Your task to perform on an android device: Clear the shopping cart on walmart.com. Search for duracell triple a on walmart.com, select the first entry, and add it to the cart. Image 0: 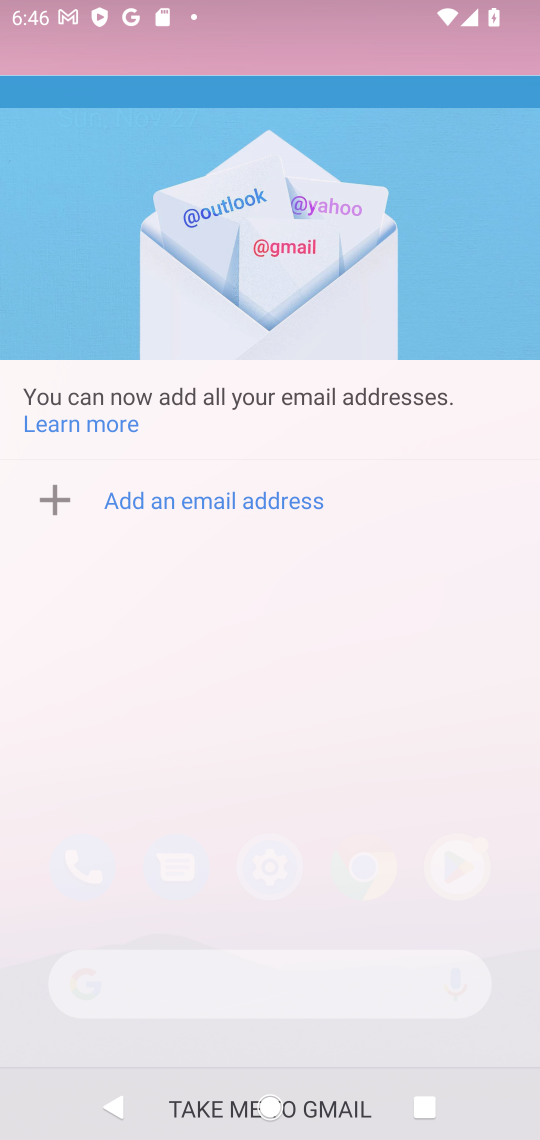
Step 0: press home button
Your task to perform on an android device: Clear the shopping cart on walmart.com. Search for duracell triple a on walmart.com, select the first entry, and add it to the cart. Image 1: 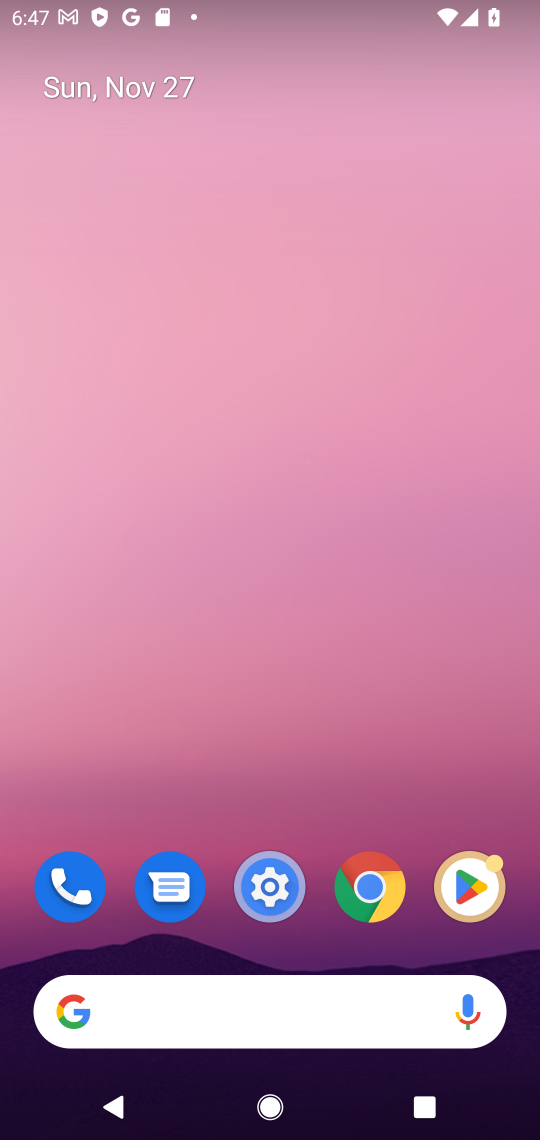
Step 1: press home button
Your task to perform on an android device: Clear the shopping cart on walmart.com. Search for duracell triple a on walmart.com, select the first entry, and add it to the cart. Image 2: 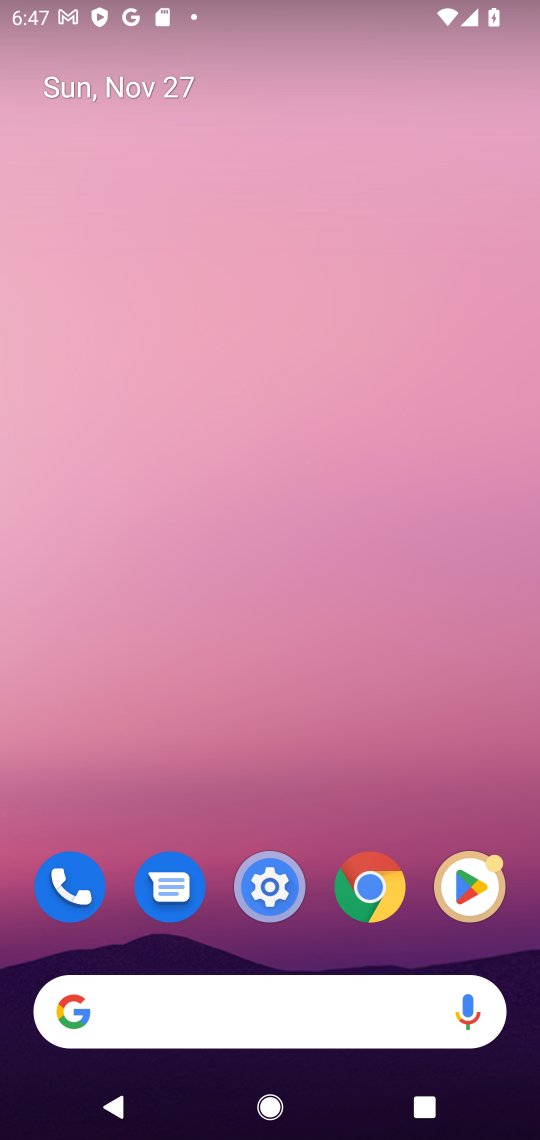
Step 2: click (323, 1029)
Your task to perform on an android device: Clear the shopping cart on walmart.com. Search for duracell triple a on walmart.com, select the first entry, and add it to the cart. Image 3: 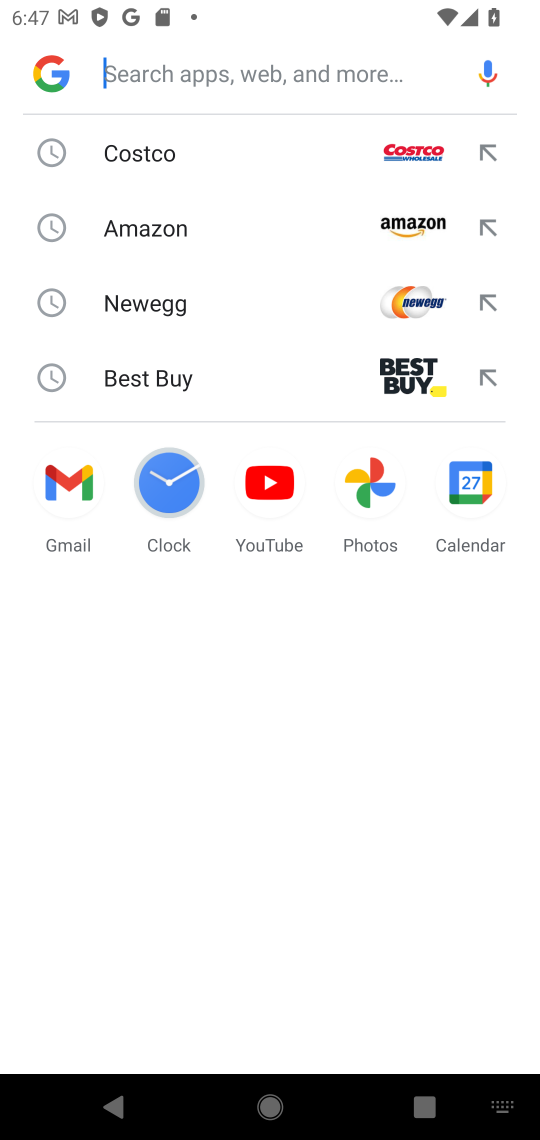
Step 3: type "walmart"
Your task to perform on an android device: Clear the shopping cart on walmart.com. Search for duracell triple a on walmart.com, select the first entry, and add it to the cart. Image 4: 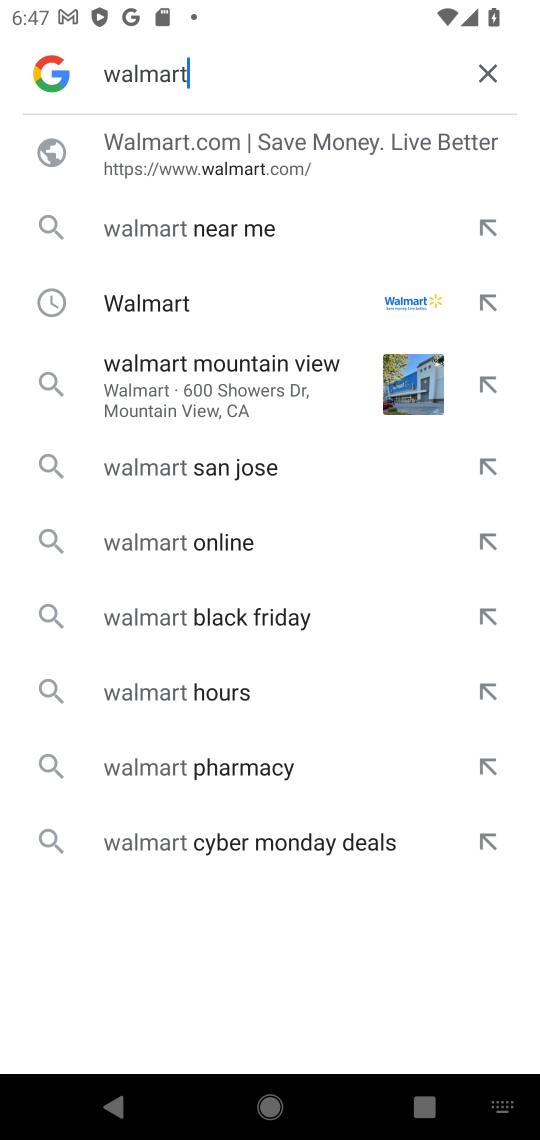
Step 4: click (301, 196)
Your task to perform on an android device: Clear the shopping cart on walmart.com. Search for duracell triple a on walmart.com, select the first entry, and add it to the cart. Image 5: 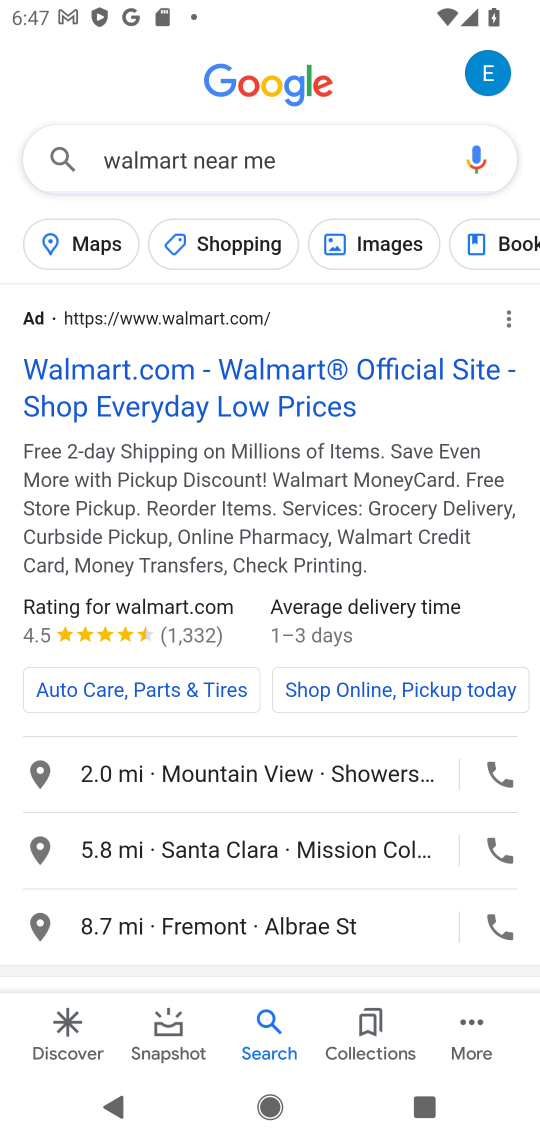
Step 5: click (193, 400)
Your task to perform on an android device: Clear the shopping cart on walmart.com. Search for duracell triple a on walmart.com, select the first entry, and add it to the cart. Image 6: 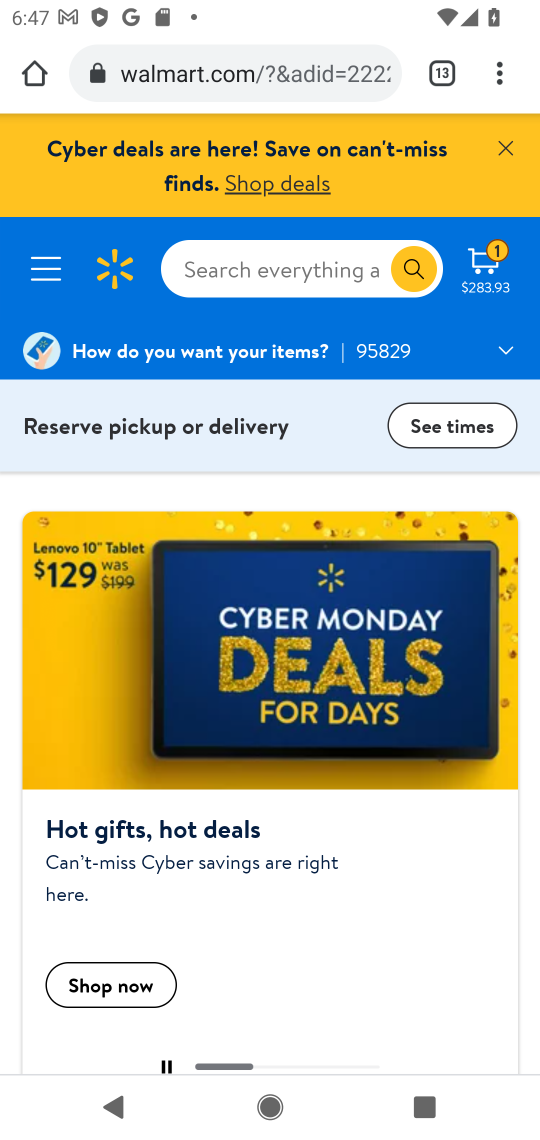
Step 6: click (294, 277)
Your task to perform on an android device: Clear the shopping cart on walmart.com. Search for duracell triple a on walmart.com, select the first entry, and add it to the cart. Image 7: 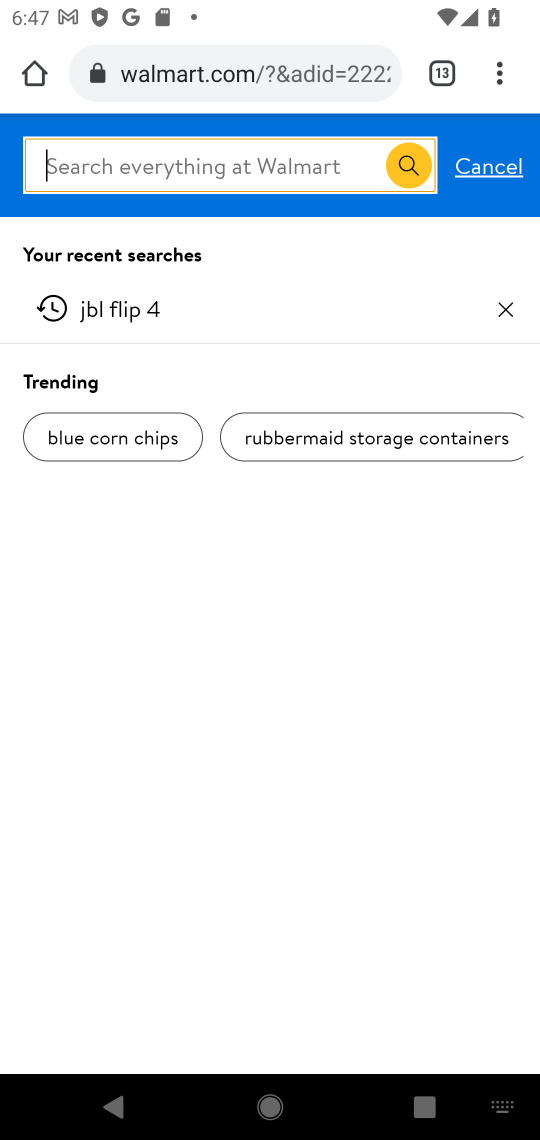
Step 7: type "duracell triple q"
Your task to perform on an android device: Clear the shopping cart on walmart.com. Search for duracell triple a on walmart.com, select the first entry, and add it to the cart. Image 8: 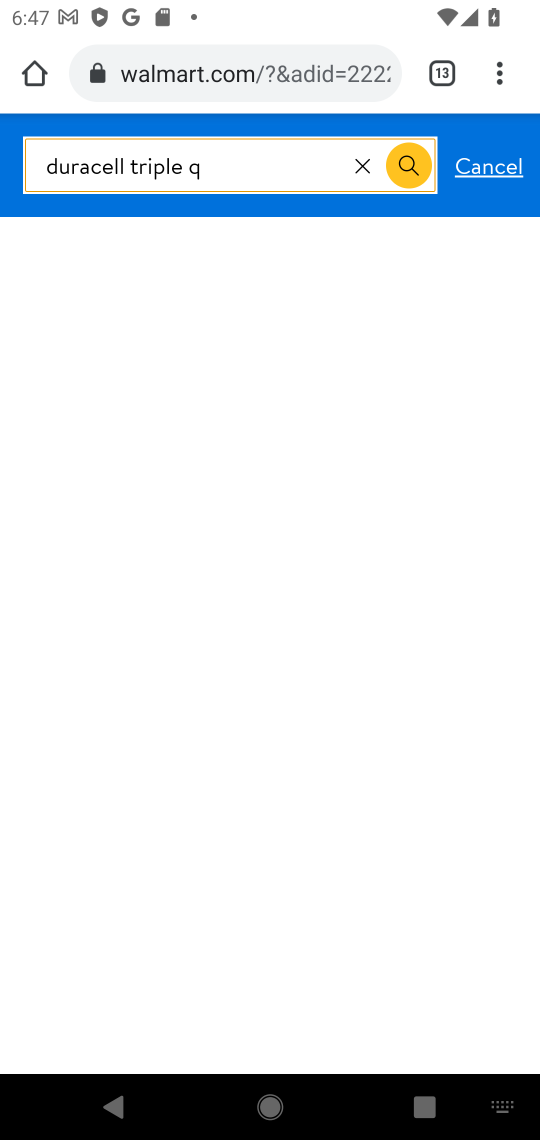
Step 8: click (406, 182)
Your task to perform on an android device: Clear the shopping cart on walmart.com. Search for duracell triple a on walmart.com, select the first entry, and add it to the cart. Image 9: 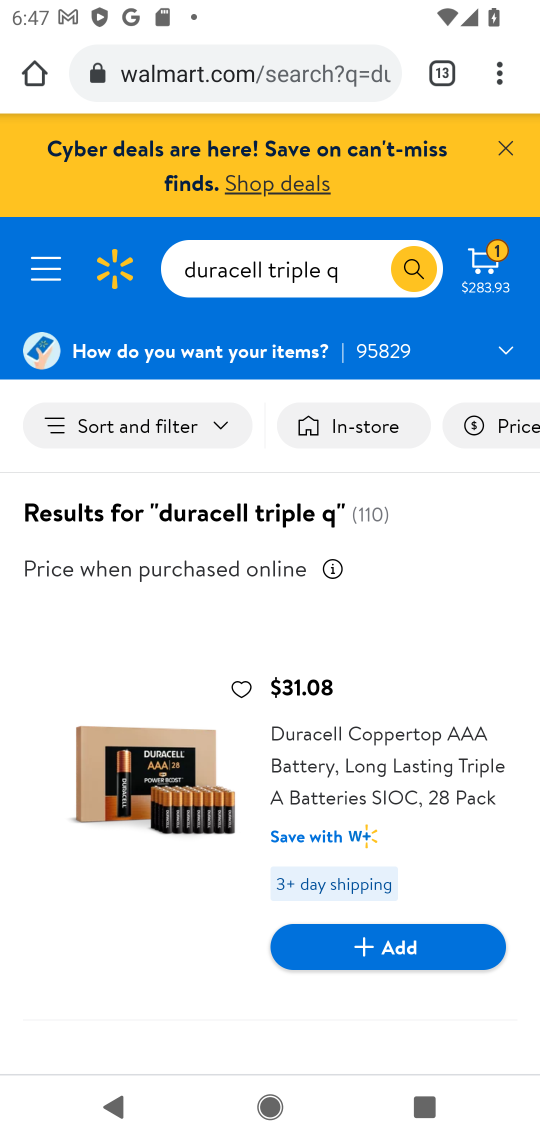
Step 9: click (437, 974)
Your task to perform on an android device: Clear the shopping cart on walmart.com. Search for duracell triple a on walmart.com, select the first entry, and add it to the cart. Image 10: 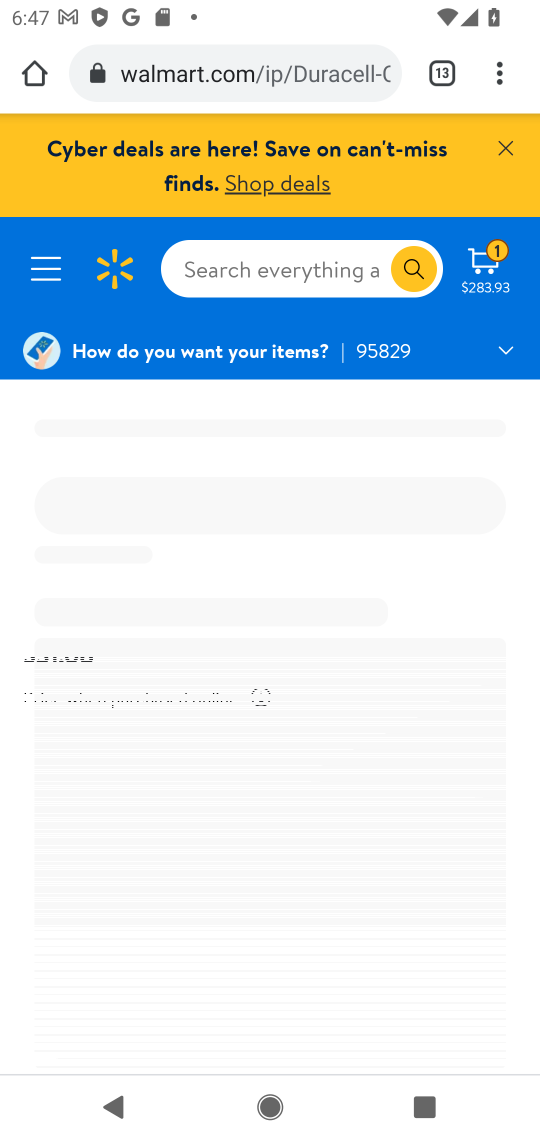
Step 10: task complete